Your task to perform on an android device: Open calendar and show me the first week of next month Image 0: 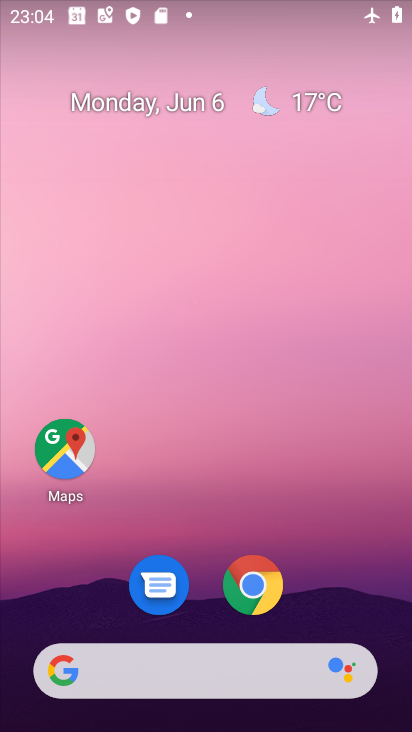
Step 0: drag from (254, 457) to (258, 0)
Your task to perform on an android device: Open calendar and show me the first week of next month Image 1: 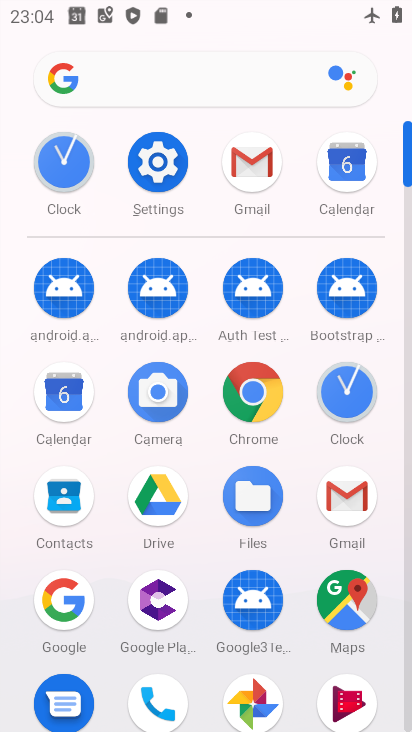
Step 1: click (331, 170)
Your task to perform on an android device: Open calendar and show me the first week of next month Image 2: 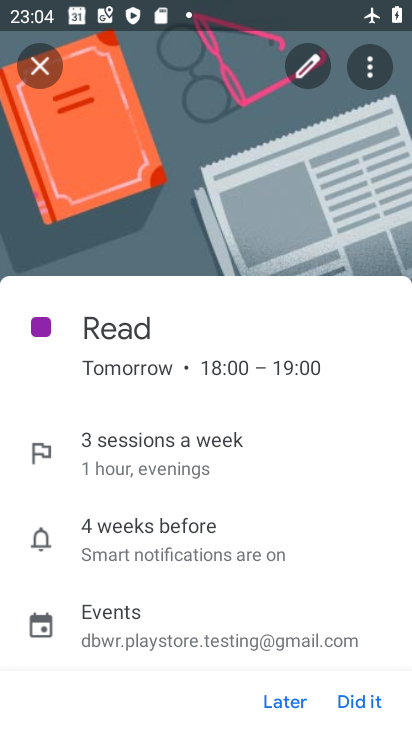
Step 2: click (36, 62)
Your task to perform on an android device: Open calendar and show me the first week of next month Image 3: 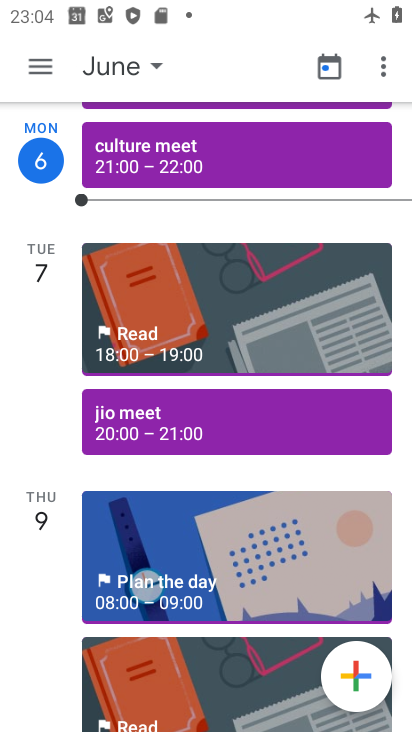
Step 3: click (36, 64)
Your task to perform on an android device: Open calendar and show me the first week of next month Image 4: 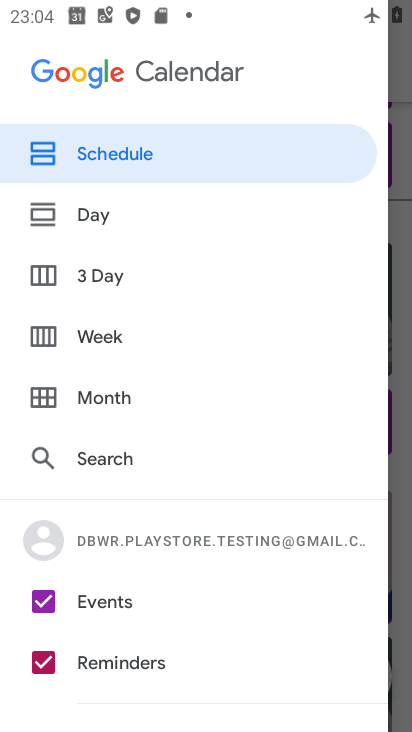
Step 4: click (104, 386)
Your task to perform on an android device: Open calendar and show me the first week of next month Image 5: 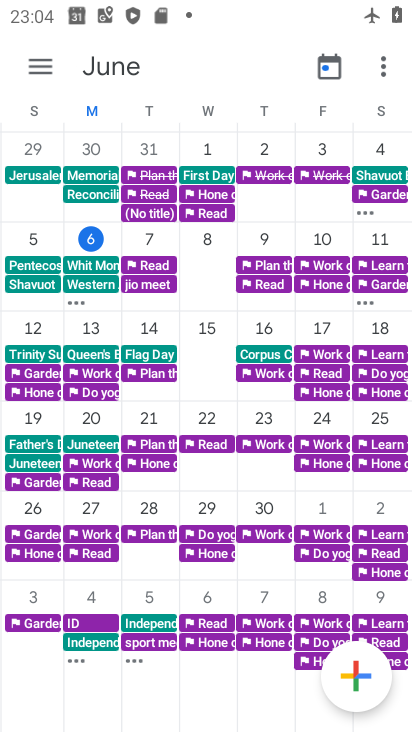
Step 5: click (35, 590)
Your task to perform on an android device: Open calendar and show me the first week of next month Image 6: 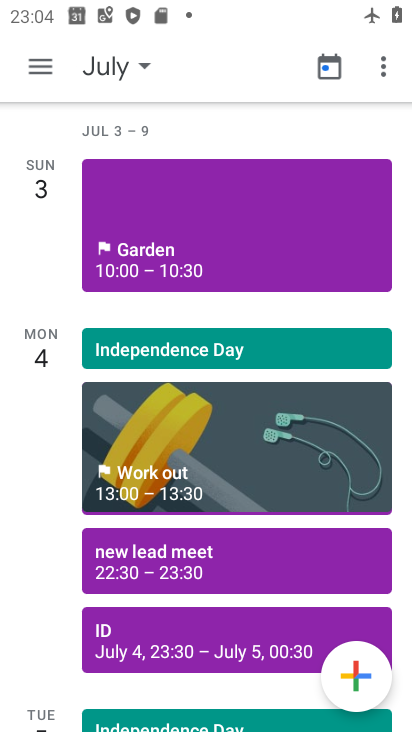
Step 6: click (36, 64)
Your task to perform on an android device: Open calendar and show me the first week of next month Image 7: 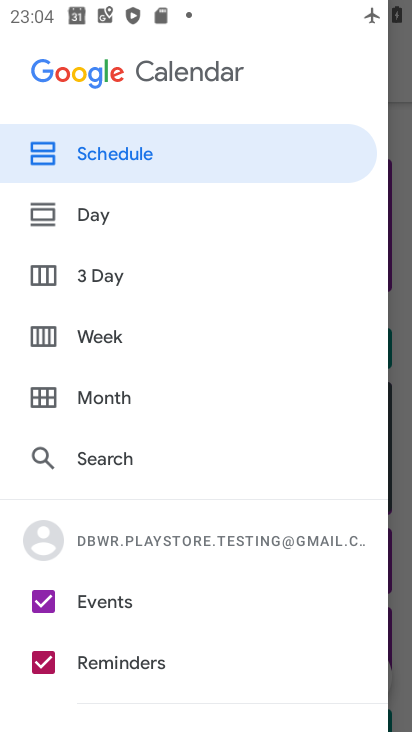
Step 7: click (43, 327)
Your task to perform on an android device: Open calendar and show me the first week of next month Image 8: 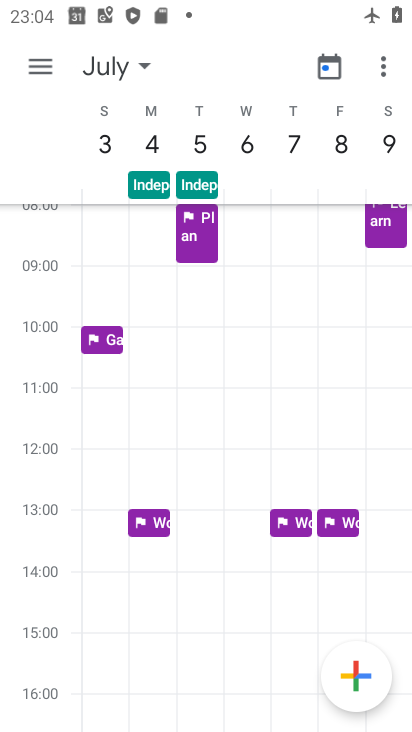
Step 8: task complete